Your task to perform on an android device: Open ESPN.com Image 0: 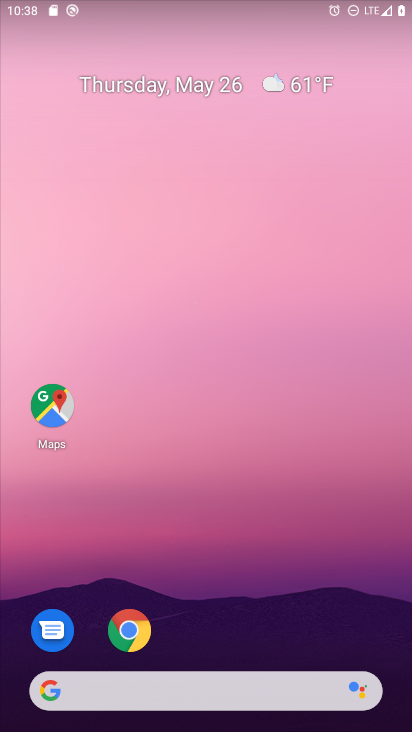
Step 0: click (133, 635)
Your task to perform on an android device: Open ESPN.com Image 1: 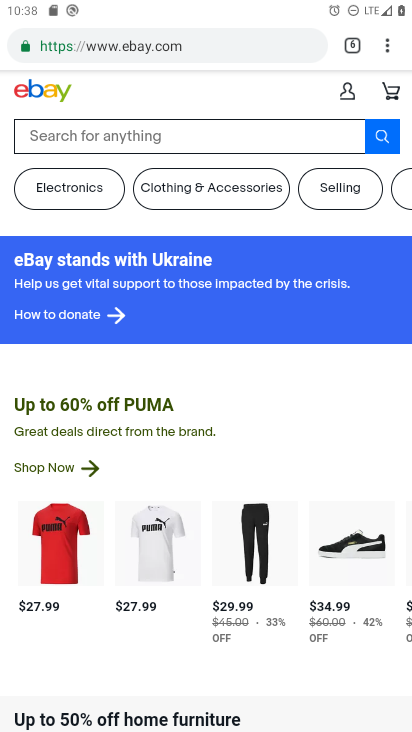
Step 1: click (351, 28)
Your task to perform on an android device: Open ESPN.com Image 2: 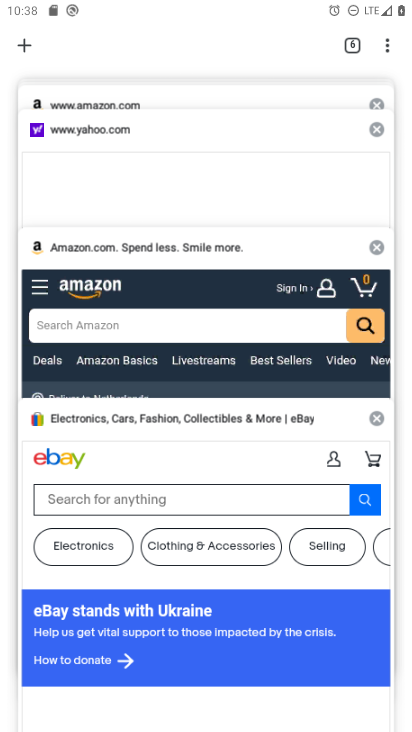
Step 2: click (26, 40)
Your task to perform on an android device: Open ESPN.com Image 3: 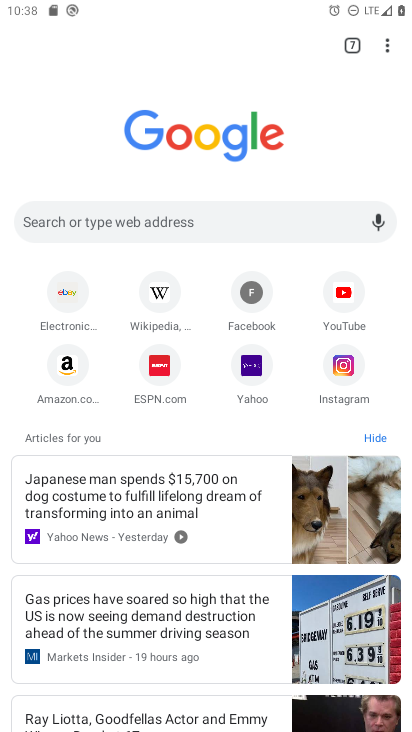
Step 3: click (145, 366)
Your task to perform on an android device: Open ESPN.com Image 4: 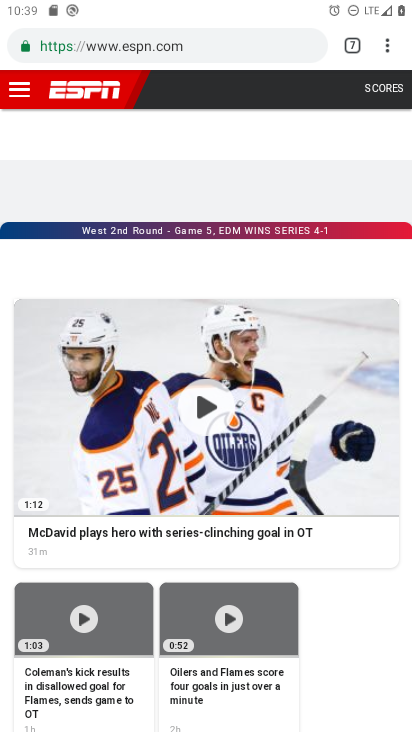
Step 4: task complete